Your task to perform on an android device: Go to notification settings Image 0: 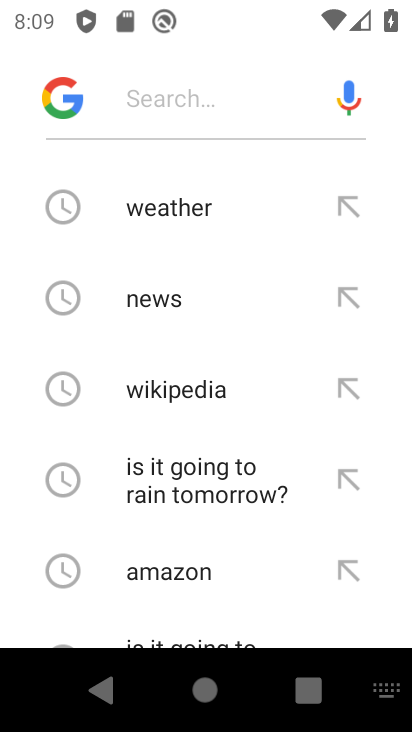
Step 0: press back button
Your task to perform on an android device: Go to notification settings Image 1: 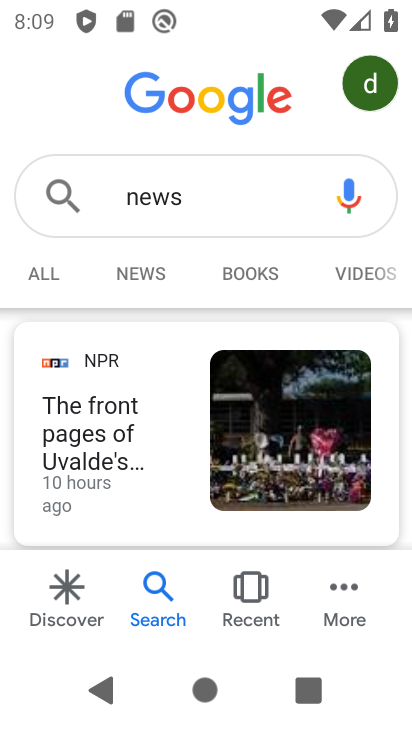
Step 1: press home button
Your task to perform on an android device: Go to notification settings Image 2: 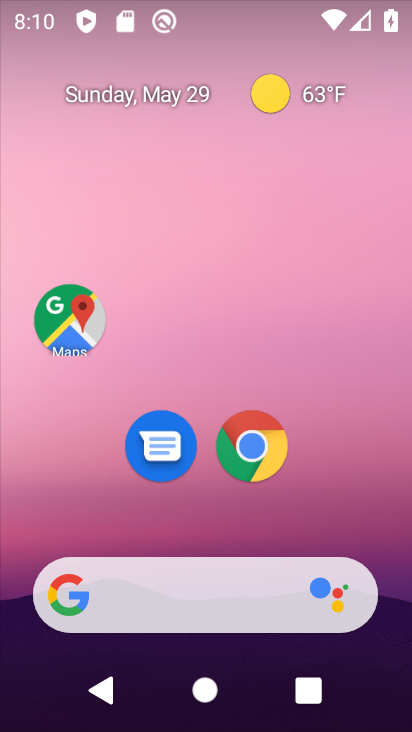
Step 2: drag from (201, 487) to (207, 133)
Your task to perform on an android device: Go to notification settings Image 3: 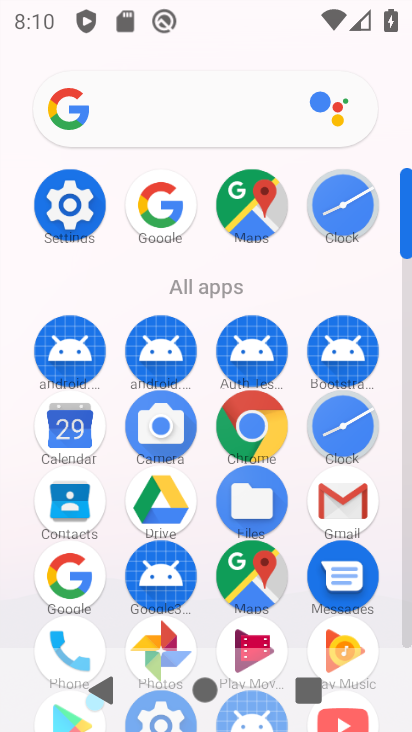
Step 3: click (97, 188)
Your task to perform on an android device: Go to notification settings Image 4: 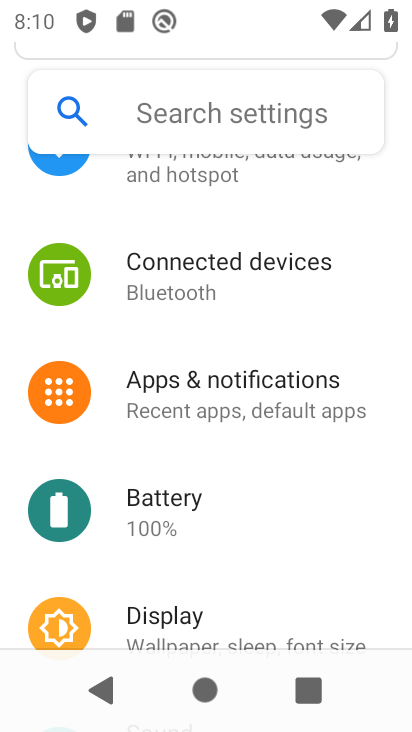
Step 4: click (176, 418)
Your task to perform on an android device: Go to notification settings Image 5: 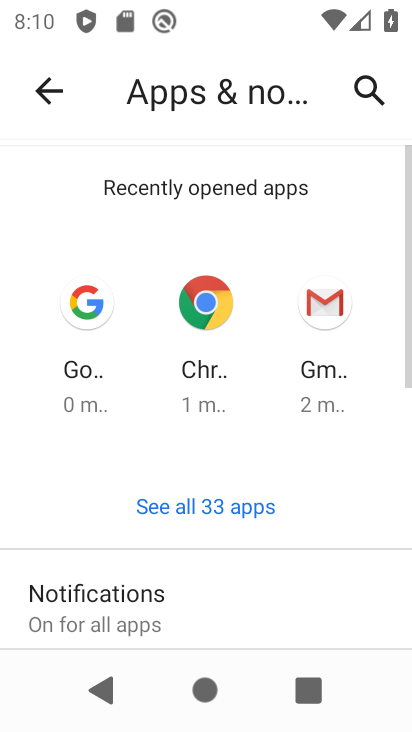
Step 5: click (167, 597)
Your task to perform on an android device: Go to notification settings Image 6: 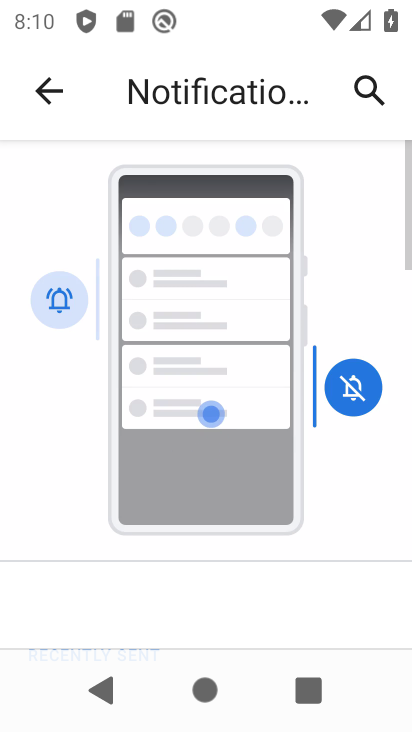
Step 6: task complete